Your task to perform on an android device: change alarm snooze length Image 0: 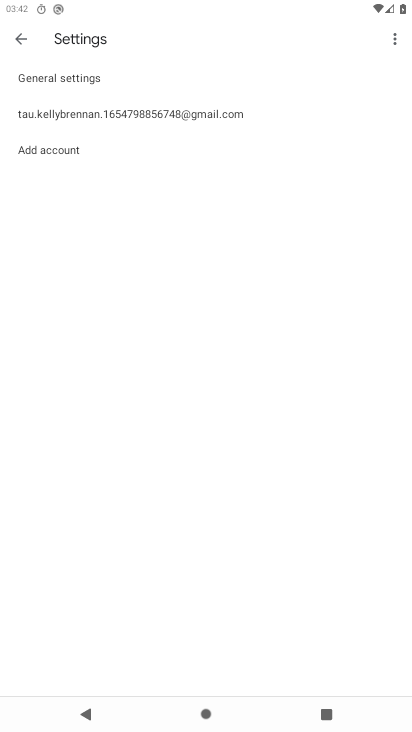
Step 0: press home button
Your task to perform on an android device: change alarm snooze length Image 1: 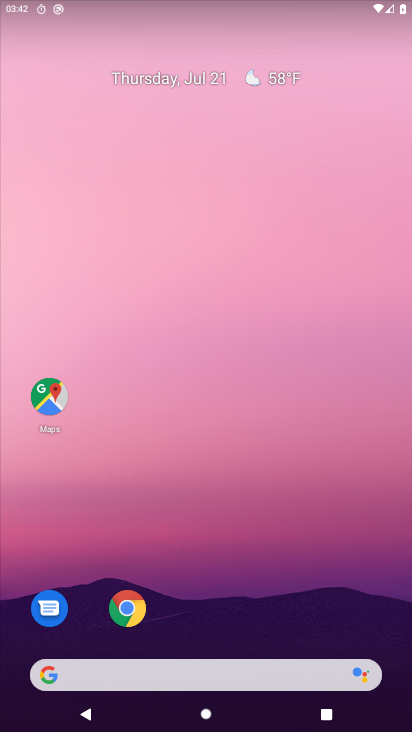
Step 1: drag from (219, 620) to (278, 124)
Your task to perform on an android device: change alarm snooze length Image 2: 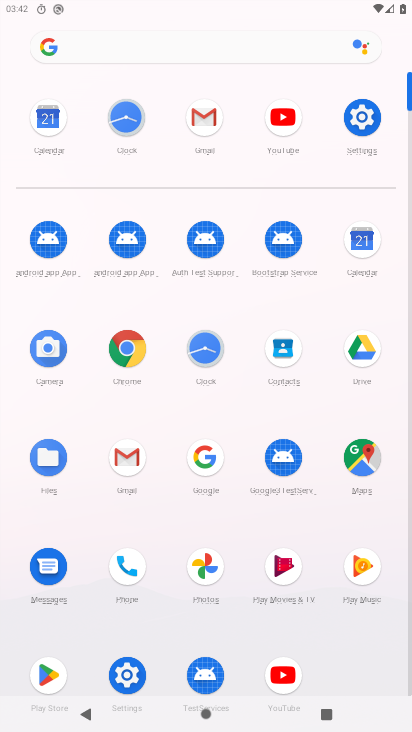
Step 2: click (202, 339)
Your task to perform on an android device: change alarm snooze length Image 3: 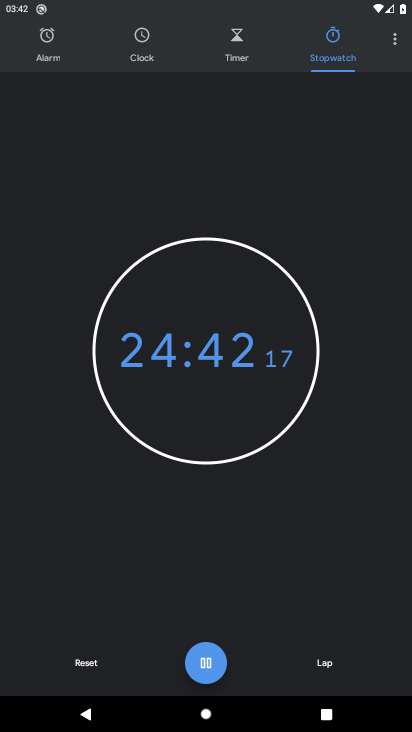
Step 3: click (386, 47)
Your task to perform on an android device: change alarm snooze length Image 4: 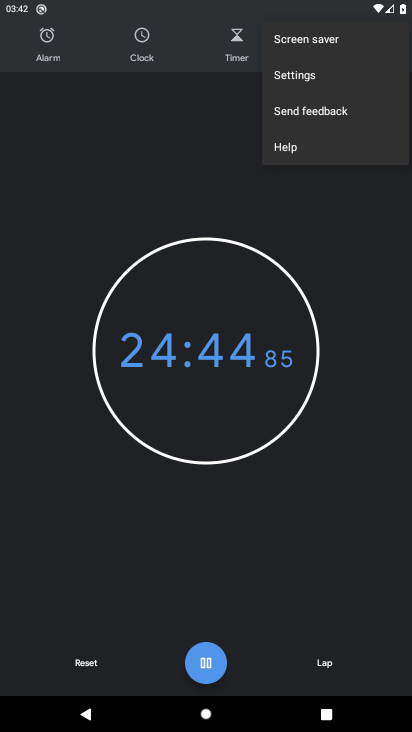
Step 4: click (309, 77)
Your task to perform on an android device: change alarm snooze length Image 5: 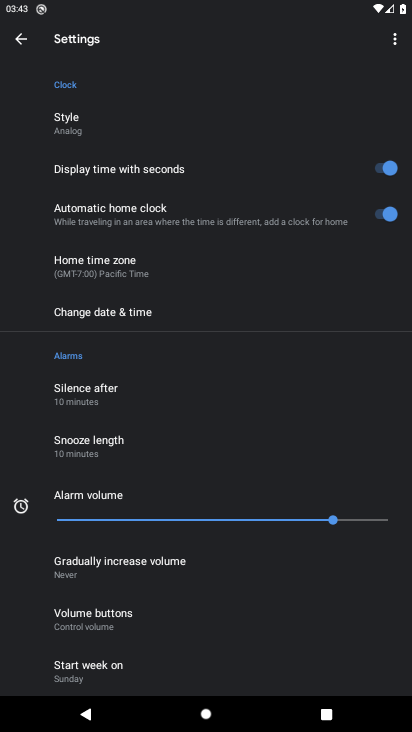
Step 5: click (116, 441)
Your task to perform on an android device: change alarm snooze length Image 6: 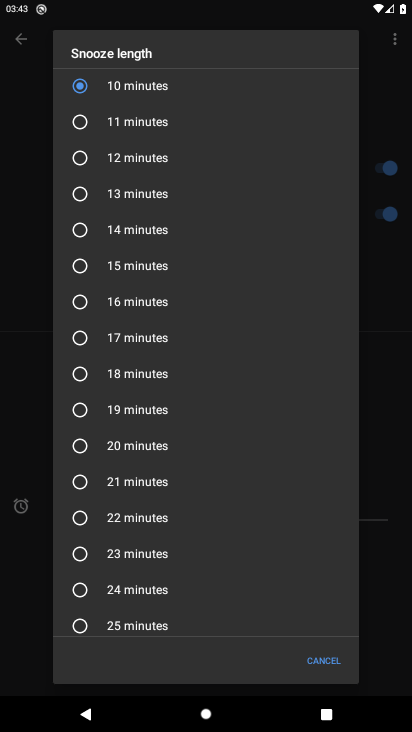
Step 6: drag from (108, 384) to (108, 585)
Your task to perform on an android device: change alarm snooze length Image 7: 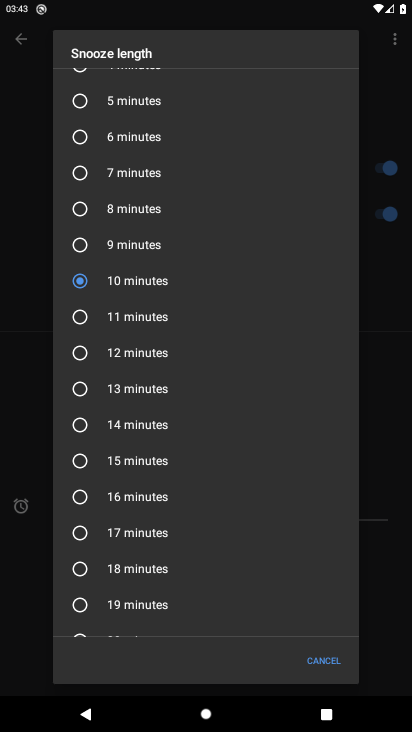
Step 7: click (77, 132)
Your task to perform on an android device: change alarm snooze length Image 8: 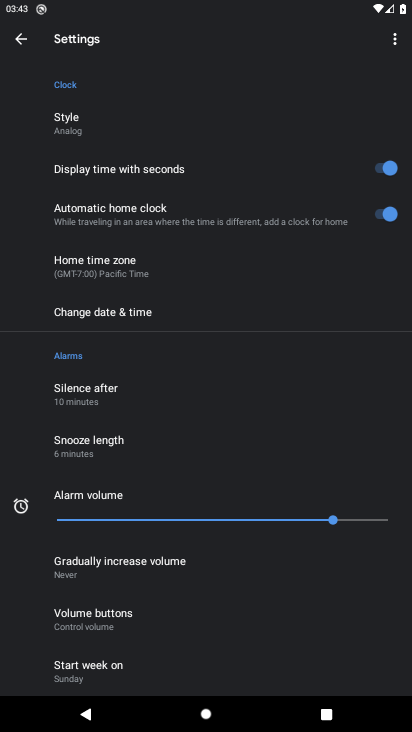
Step 8: task complete